Your task to perform on an android device: see tabs open on other devices in the chrome app Image 0: 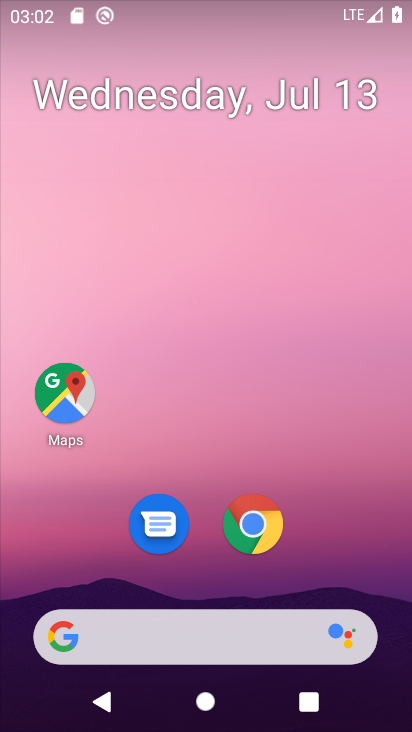
Step 0: click (266, 531)
Your task to perform on an android device: see tabs open on other devices in the chrome app Image 1: 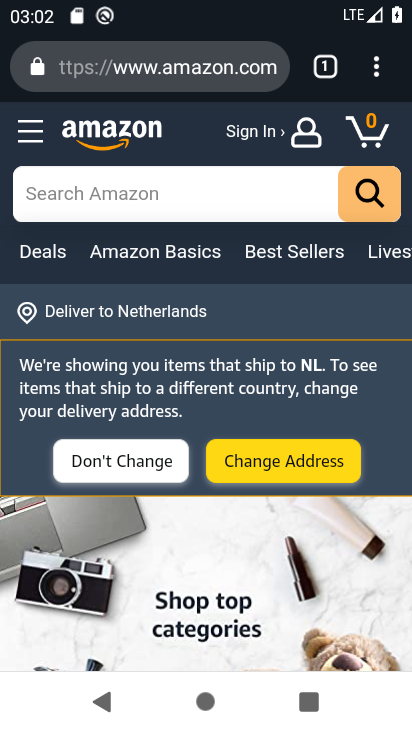
Step 1: click (376, 71)
Your task to perform on an android device: see tabs open on other devices in the chrome app Image 2: 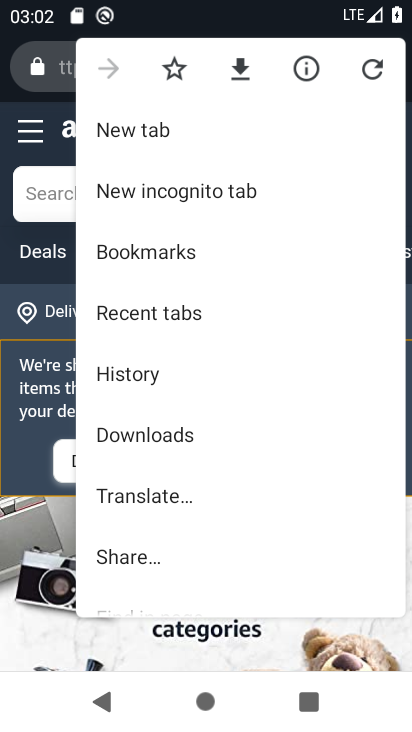
Step 2: click (188, 311)
Your task to perform on an android device: see tabs open on other devices in the chrome app Image 3: 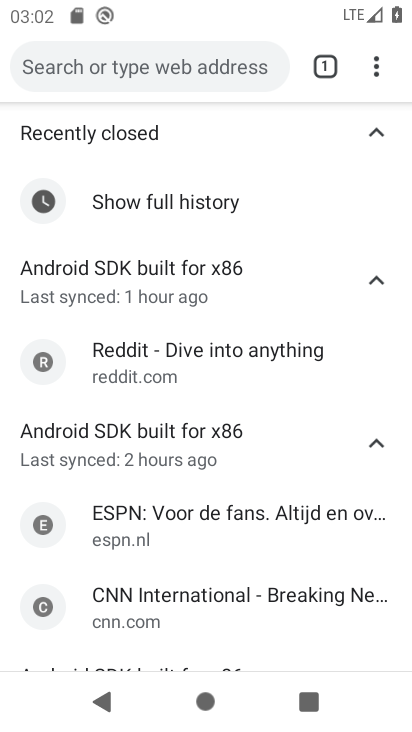
Step 3: task complete